Your task to perform on an android device: move a message to another label in the gmail app Image 0: 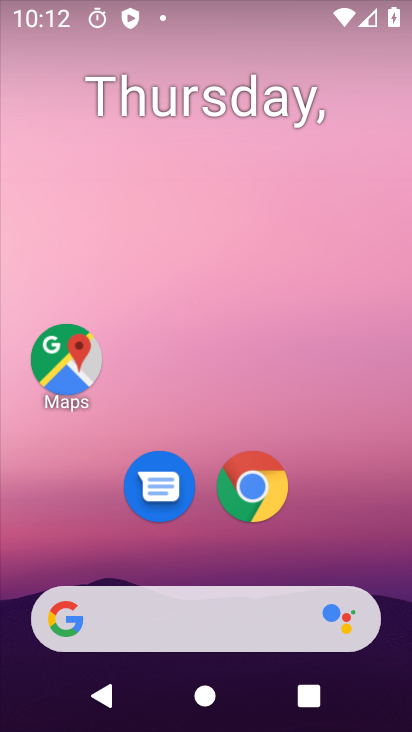
Step 0: drag from (390, 363) to (386, 251)
Your task to perform on an android device: move a message to another label in the gmail app Image 1: 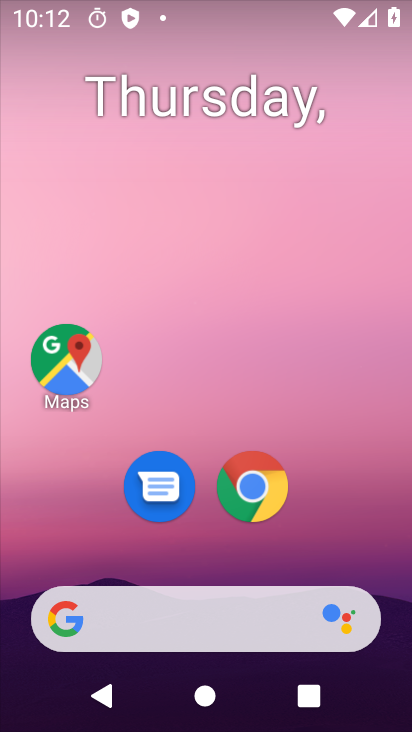
Step 1: drag from (392, 617) to (378, 158)
Your task to perform on an android device: move a message to another label in the gmail app Image 2: 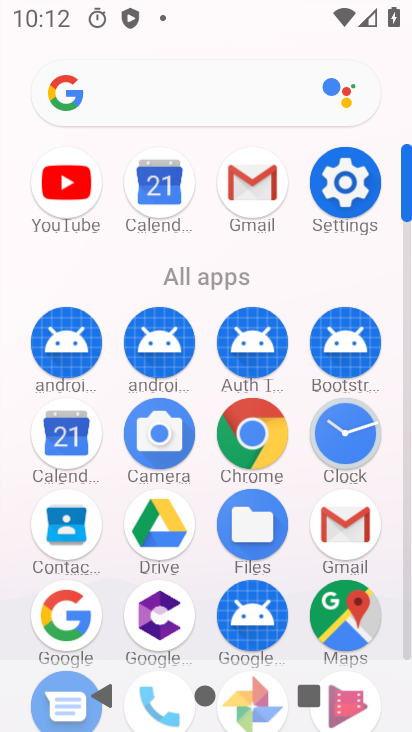
Step 2: click (328, 516)
Your task to perform on an android device: move a message to another label in the gmail app Image 3: 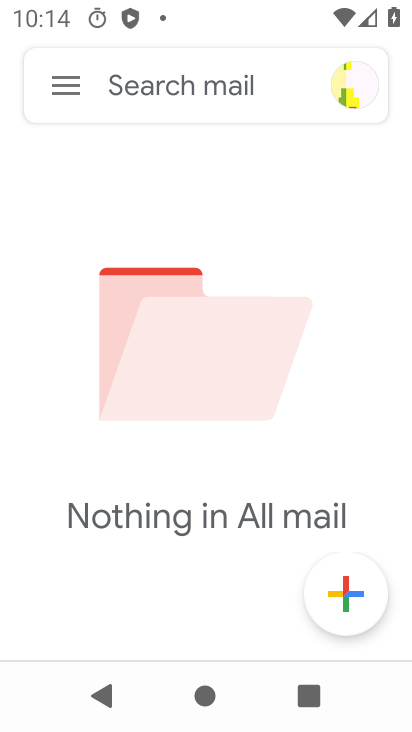
Step 3: click (54, 86)
Your task to perform on an android device: move a message to another label in the gmail app Image 4: 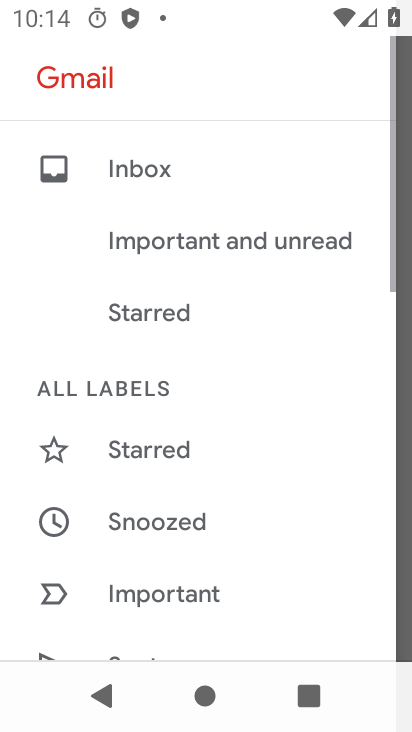
Step 4: click (100, 174)
Your task to perform on an android device: move a message to another label in the gmail app Image 5: 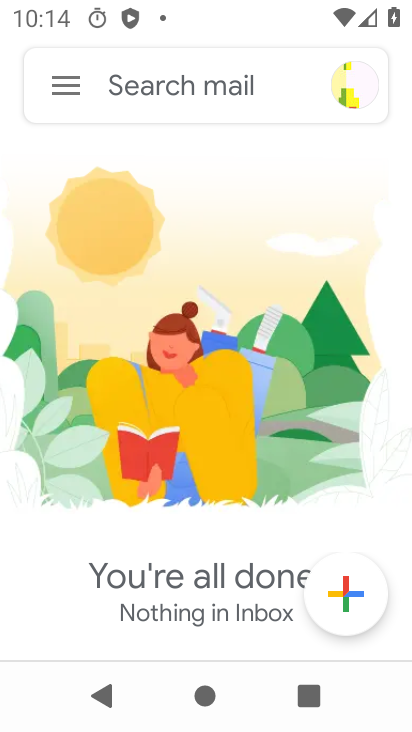
Step 5: task complete